Your task to perform on an android device: search for starred emails in the gmail app Image 0: 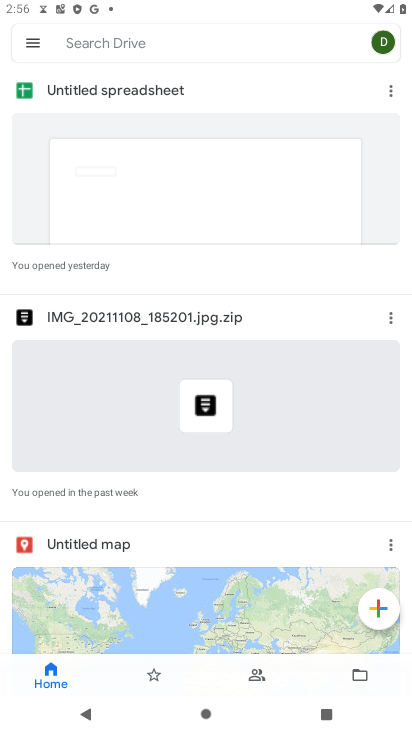
Step 0: press home button
Your task to perform on an android device: search for starred emails in the gmail app Image 1: 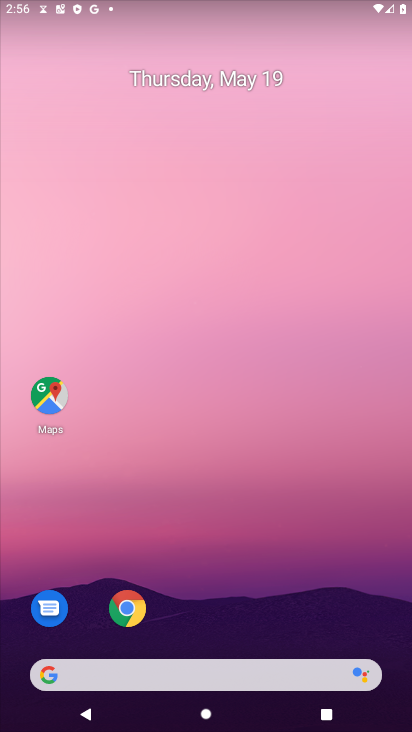
Step 1: drag from (268, 642) to (158, 150)
Your task to perform on an android device: search for starred emails in the gmail app Image 2: 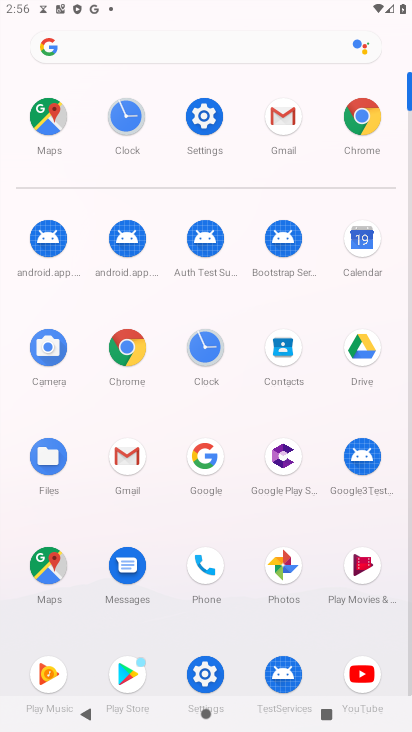
Step 2: click (278, 113)
Your task to perform on an android device: search for starred emails in the gmail app Image 3: 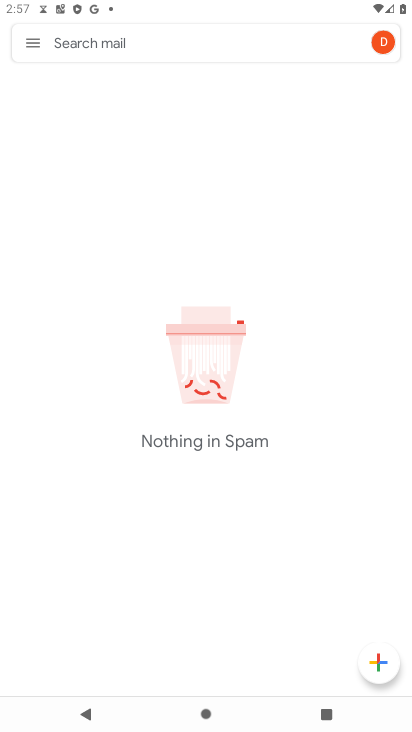
Step 3: click (27, 32)
Your task to perform on an android device: search for starred emails in the gmail app Image 4: 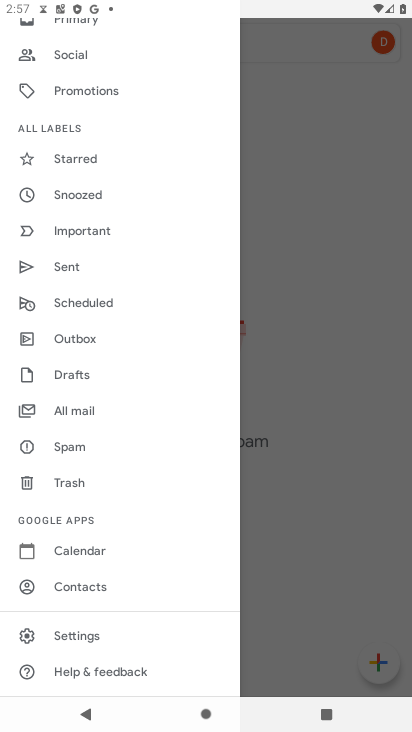
Step 4: click (134, 157)
Your task to perform on an android device: search for starred emails in the gmail app Image 5: 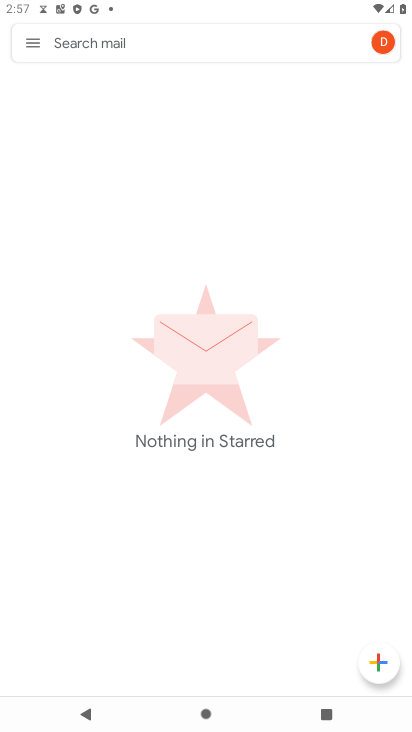
Step 5: task complete